Your task to perform on an android device: check android version Image 0: 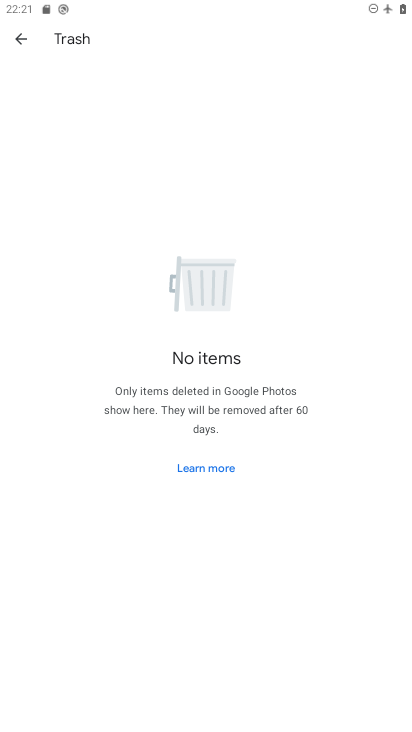
Step 0: press home button
Your task to perform on an android device: check android version Image 1: 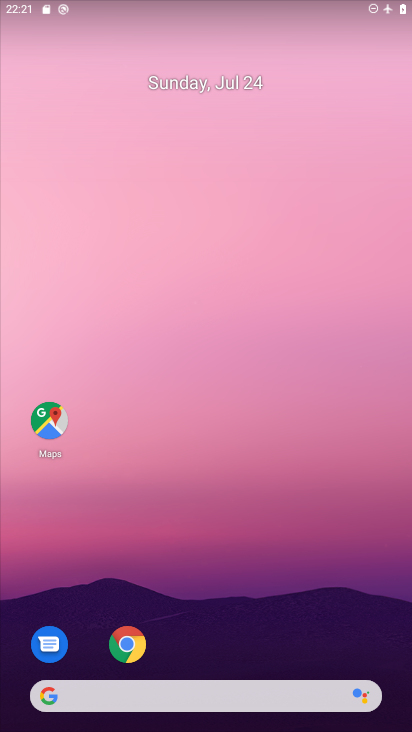
Step 1: drag from (354, 640) to (357, 39)
Your task to perform on an android device: check android version Image 2: 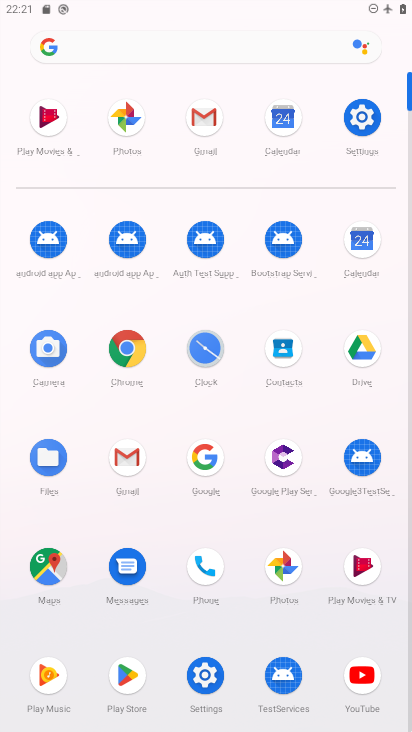
Step 2: click (204, 675)
Your task to perform on an android device: check android version Image 3: 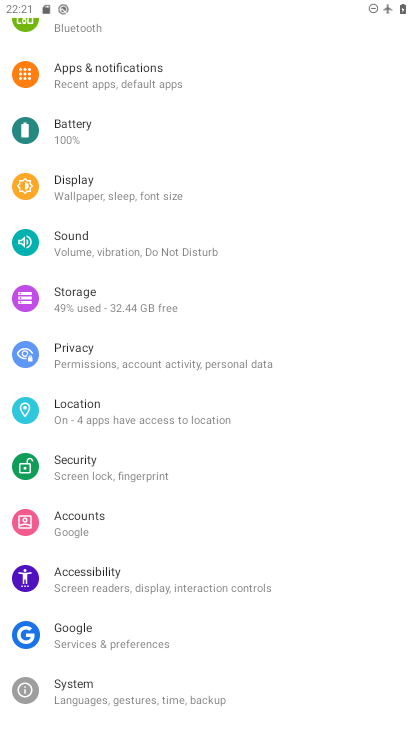
Step 3: drag from (280, 690) to (291, 275)
Your task to perform on an android device: check android version Image 4: 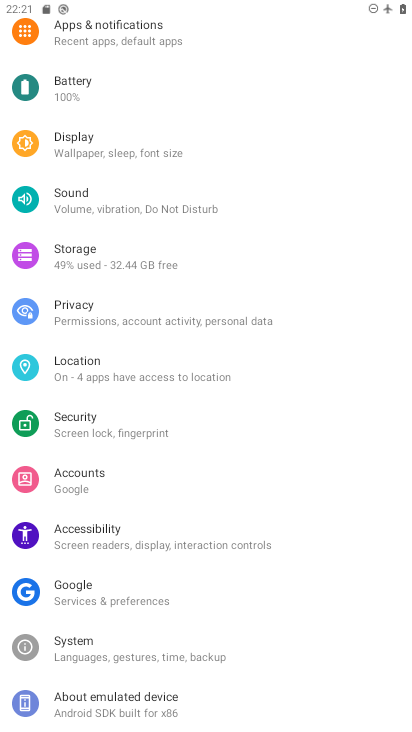
Step 4: click (100, 698)
Your task to perform on an android device: check android version Image 5: 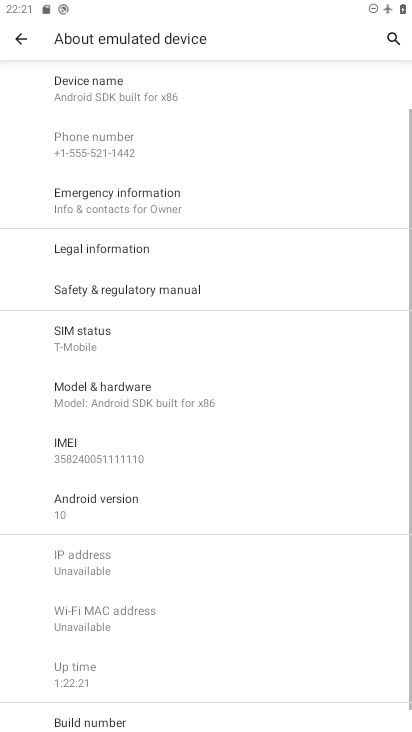
Step 5: click (78, 497)
Your task to perform on an android device: check android version Image 6: 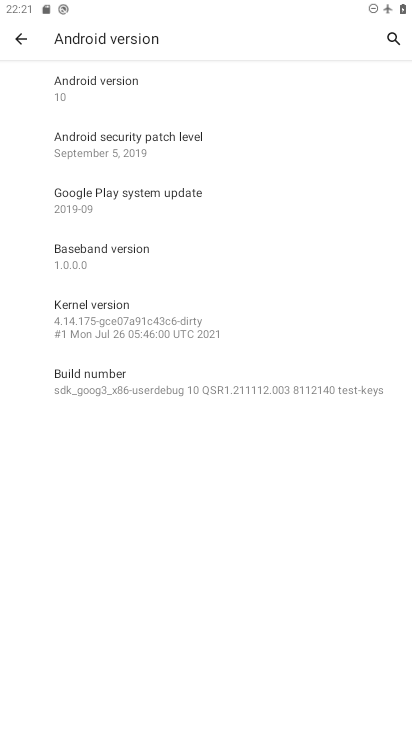
Step 6: click (89, 93)
Your task to perform on an android device: check android version Image 7: 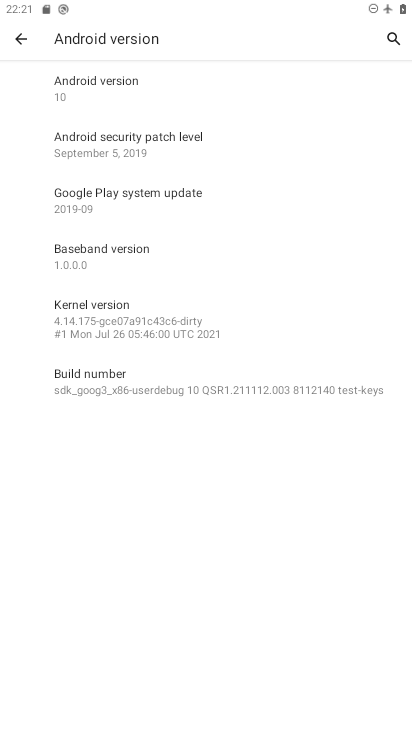
Step 7: task complete